Your task to perform on an android device: change timer sound Image 0: 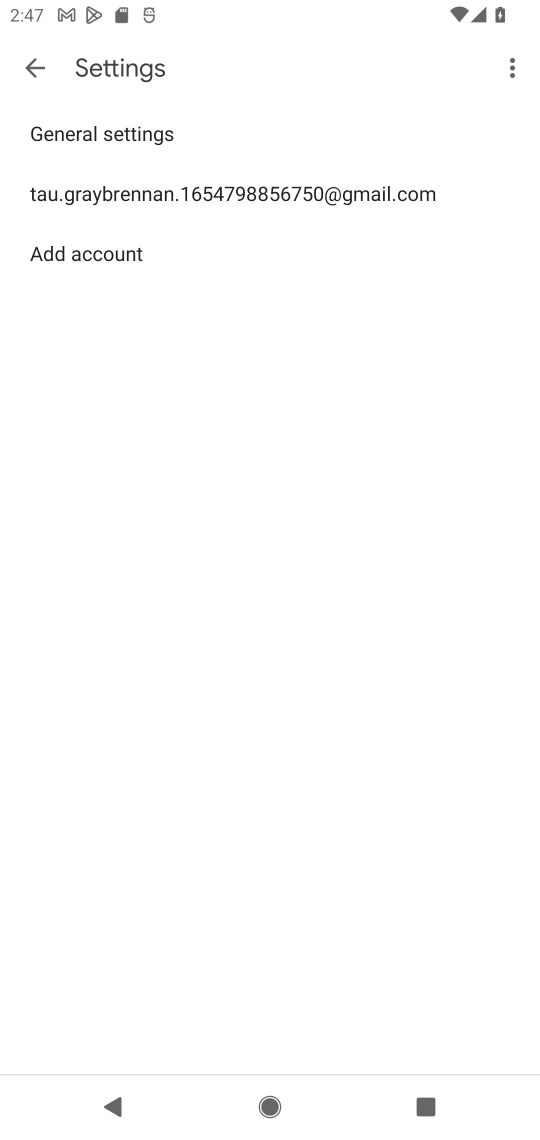
Step 0: press home button
Your task to perform on an android device: change timer sound Image 1: 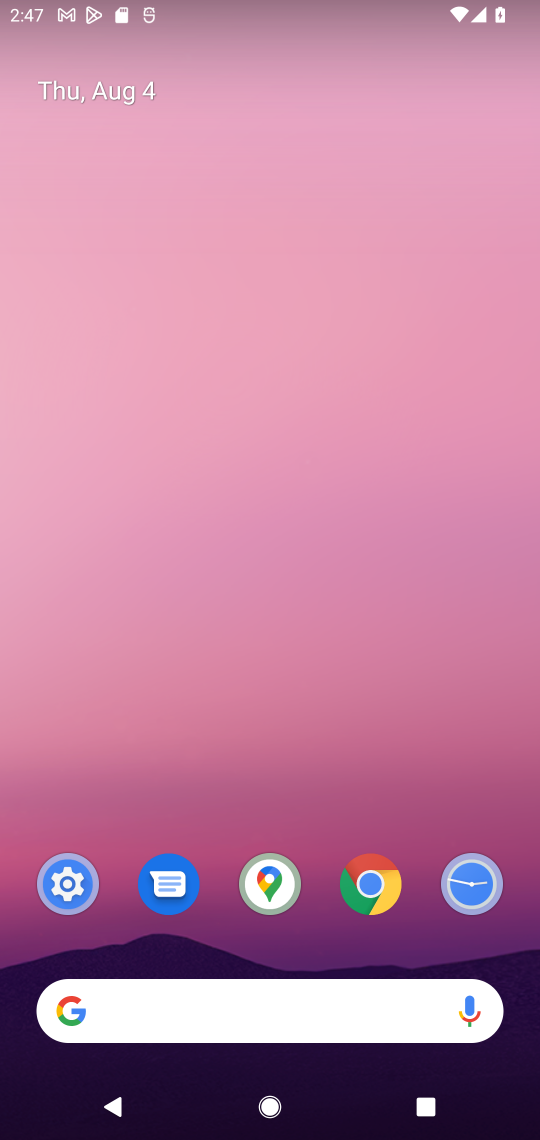
Step 1: drag from (293, 968) to (310, 307)
Your task to perform on an android device: change timer sound Image 2: 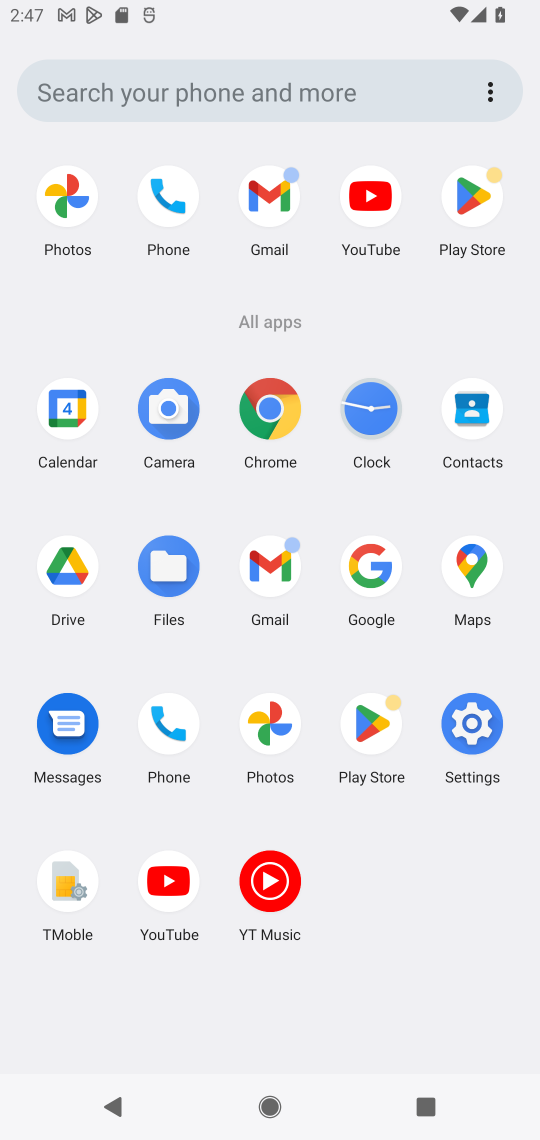
Step 2: click (350, 415)
Your task to perform on an android device: change timer sound Image 3: 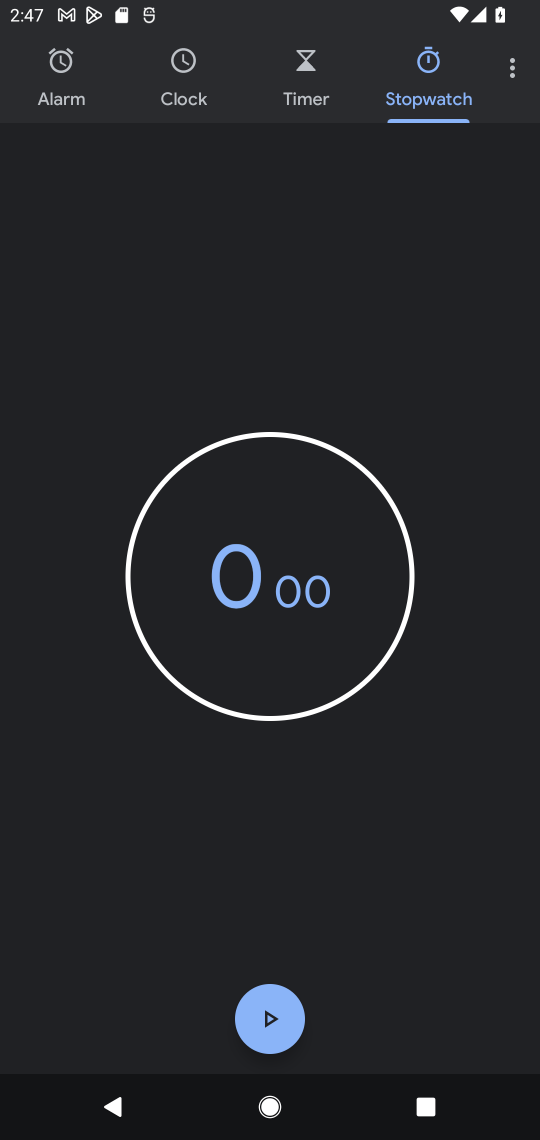
Step 3: click (283, 98)
Your task to perform on an android device: change timer sound Image 4: 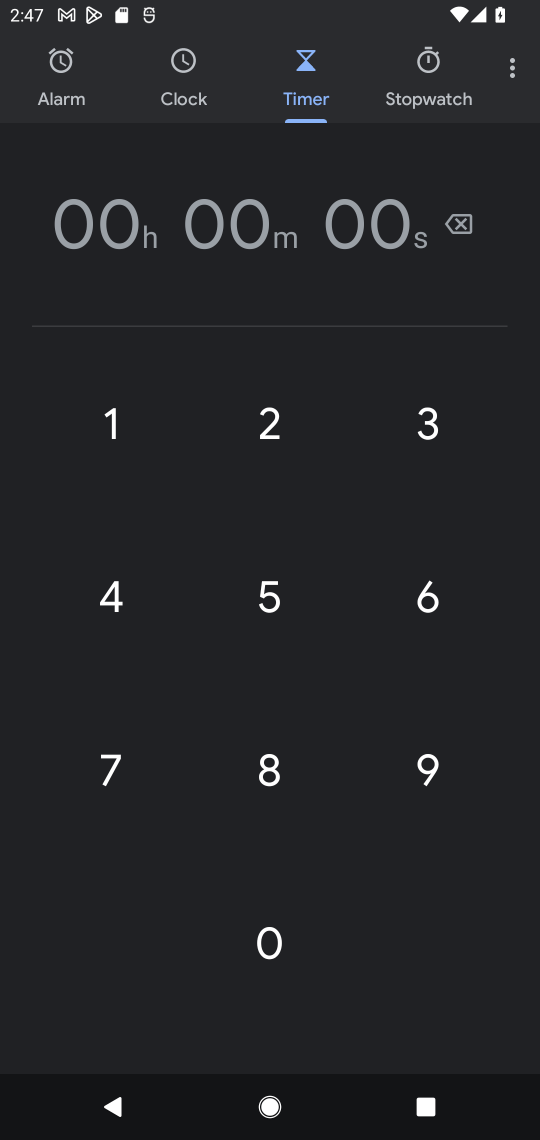
Step 4: task complete